Your task to perform on an android device: Open Wikipedia Image 0: 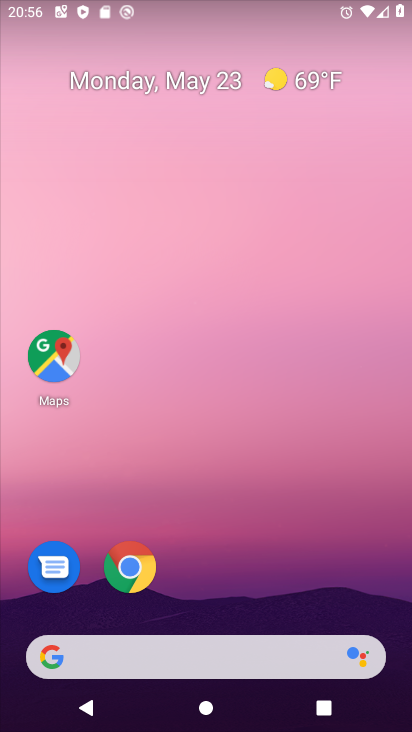
Step 0: drag from (218, 585) to (221, 175)
Your task to perform on an android device: Open Wikipedia Image 1: 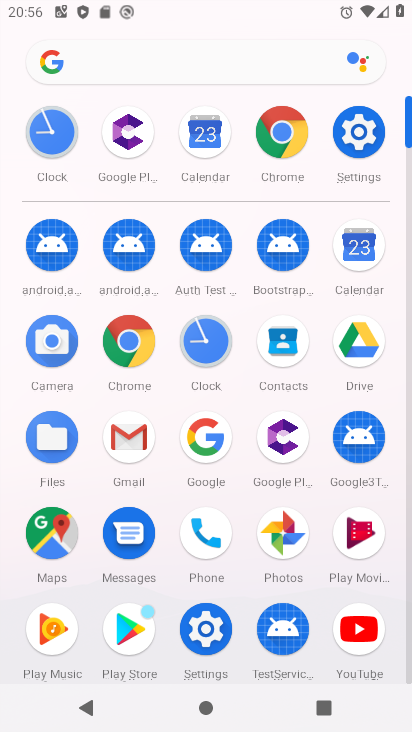
Step 1: click (287, 135)
Your task to perform on an android device: Open Wikipedia Image 2: 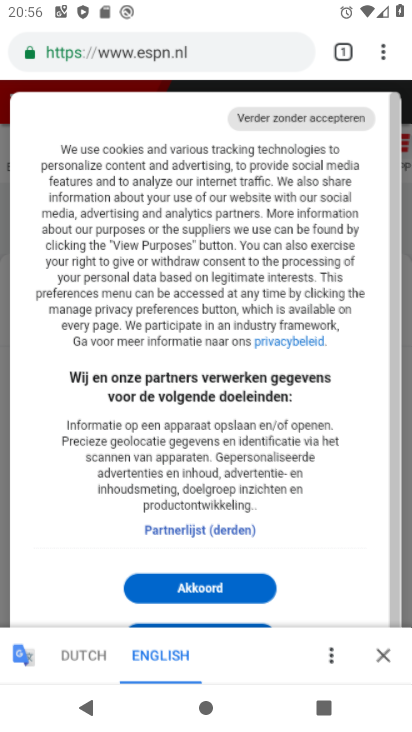
Step 2: click (156, 51)
Your task to perform on an android device: Open Wikipedia Image 3: 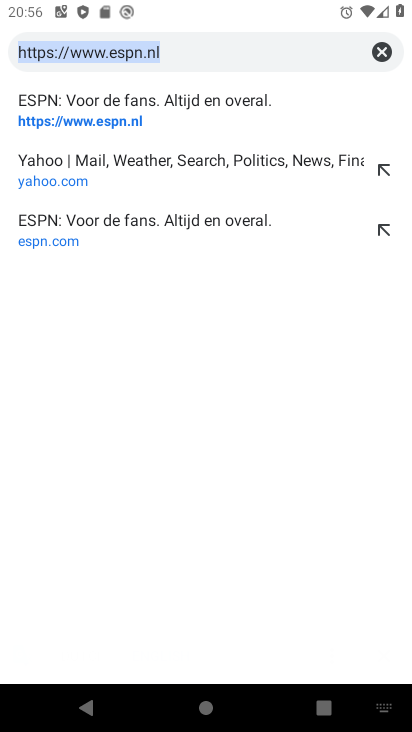
Step 3: type "wikipedia."
Your task to perform on an android device: Open Wikipedia Image 4: 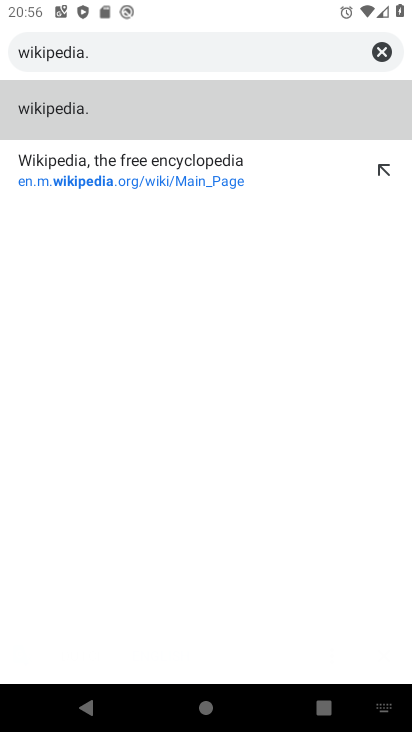
Step 4: click (96, 109)
Your task to perform on an android device: Open Wikipedia Image 5: 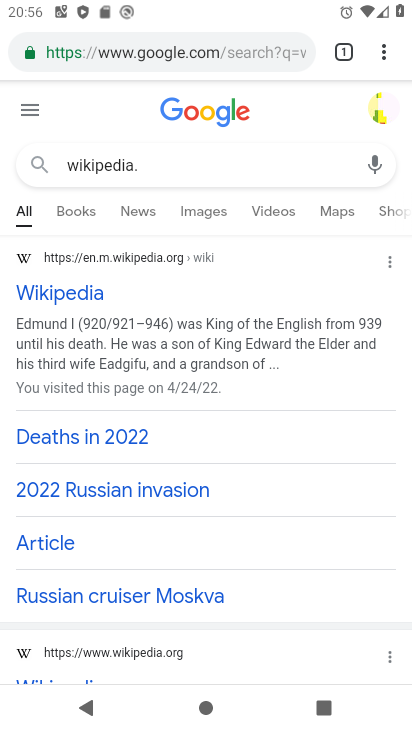
Step 5: task complete